Your task to perform on an android device: empty trash in google photos Image 0: 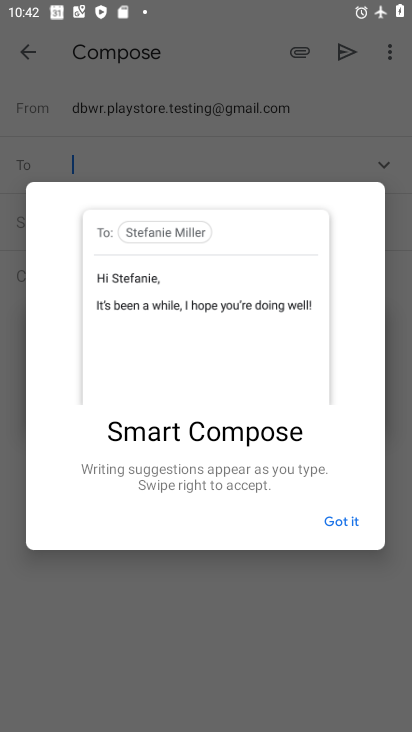
Step 0: press home button
Your task to perform on an android device: empty trash in google photos Image 1: 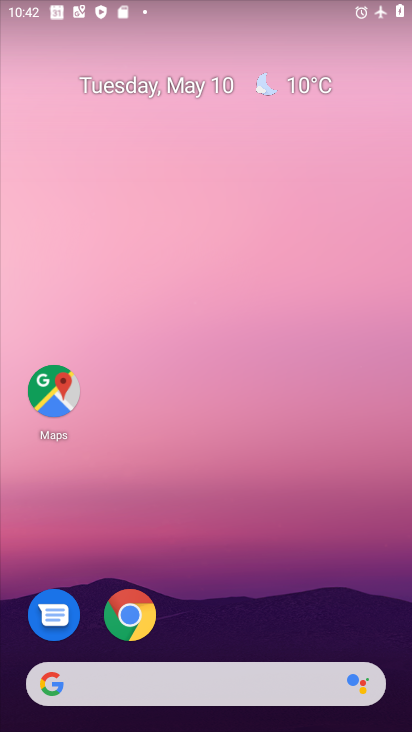
Step 1: drag from (211, 648) to (268, 157)
Your task to perform on an android device: empty trash in google photos Image 2: 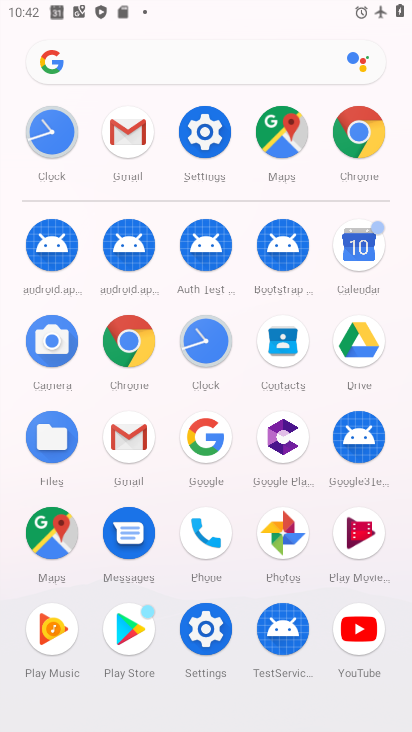
Step 2: click (282, 527)
Your task to perform on an android device: empty trash in google photos Image 3: 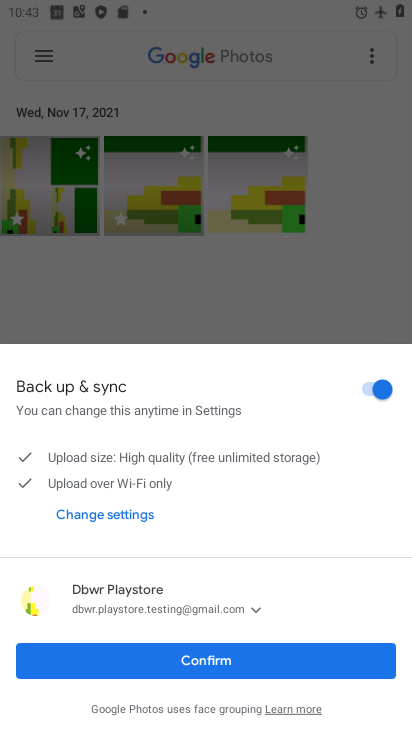
Step 3: click (228, 657)
Your task to perform on an android device: empty trash in google photos Image 4: 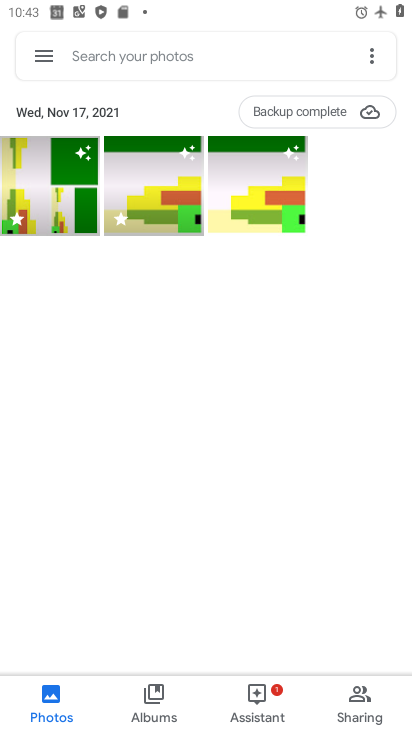
Step 4: click (43, 47)
Your task to perform on an android device: empty trash in google photos Image 5: 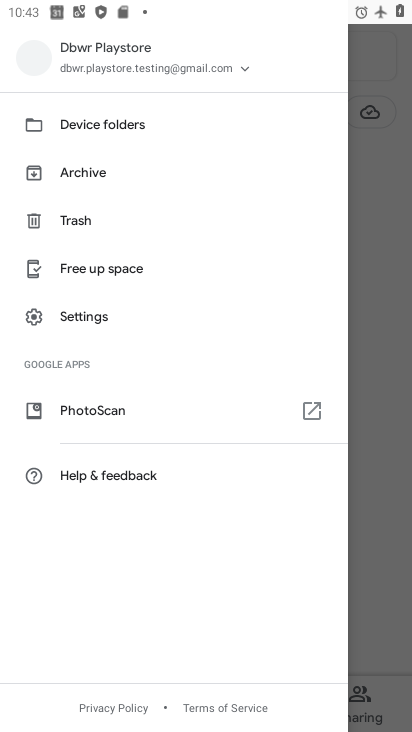
Step 5: click (119, 311)
Your task to perform on an android device: empty trash in google photos Image 6: 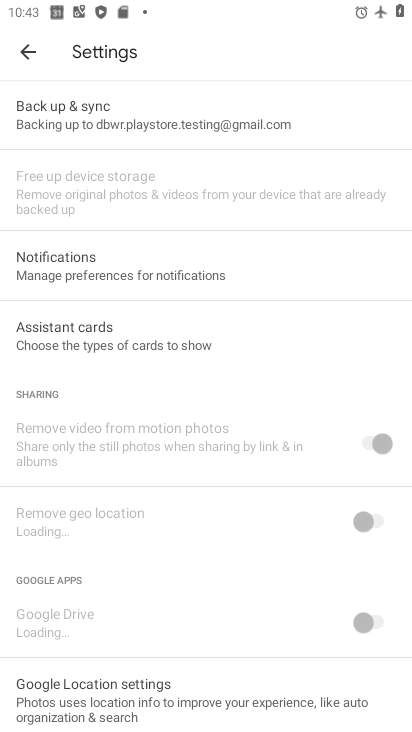
Step 6: click (36, 53)
Your task to perform on an android device: empty trash in google photos Image 7: 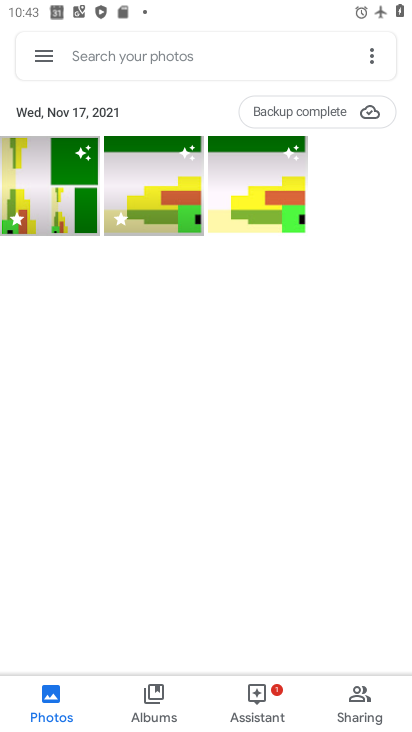
Step 7: click (45, 47)
Your task to perform on an android device: empty trash in google photos Image 8: 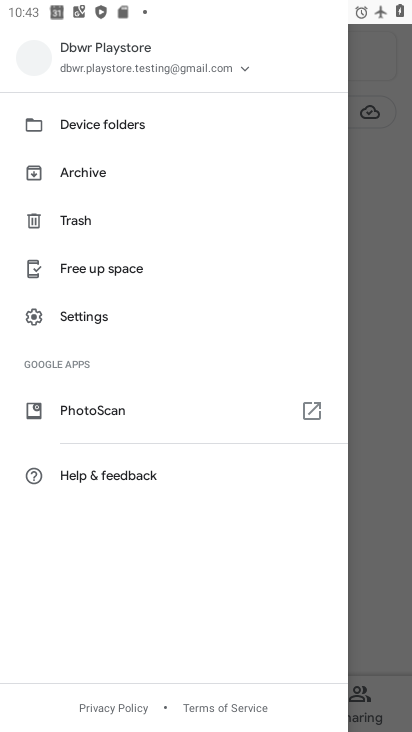
Step 8: click (100, 217)
Your task to perform on an android device: empty trash in google photos Image 9: 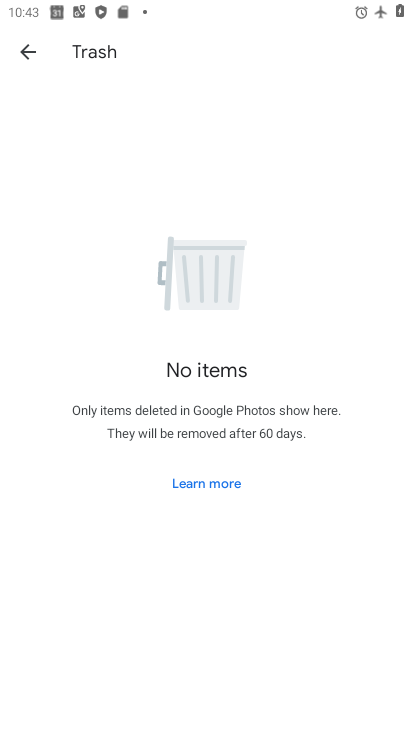
Step 9: task complete